Your task to perform on an android device: Open Maps and search for coffee Image 0: 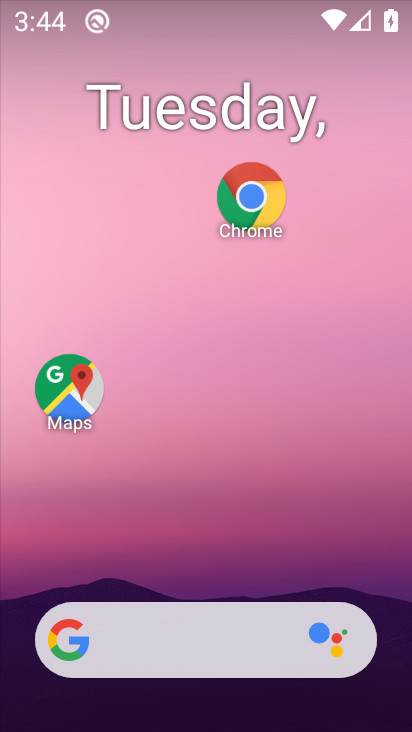
Step 0: click (64, 381)
Your task to perform on an android device: Open Maps and search for coffee Image 1: 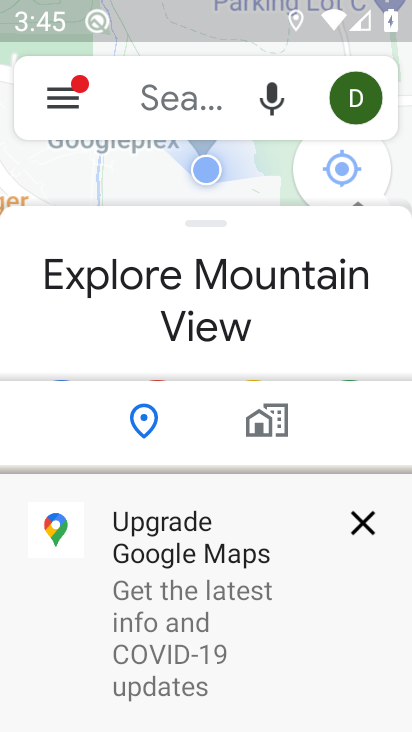
Step 1: click (363, 526)
Your task to perform on an android device: Open Maps and search for coffee Image 2: 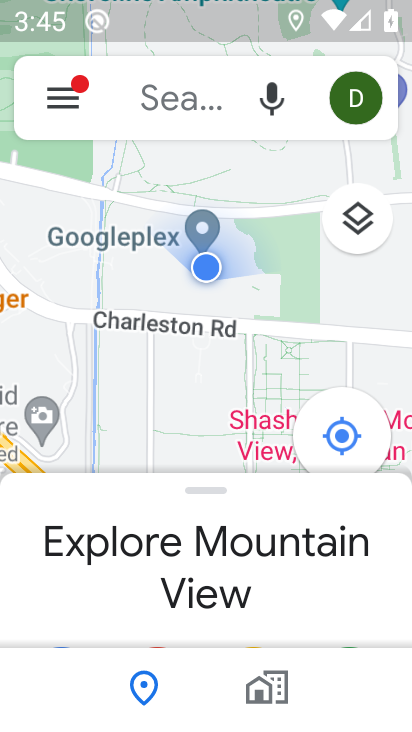
Step 2: click (180, 100)
Your task to perform on an android device: Open Maps and search for coffee Image 3: 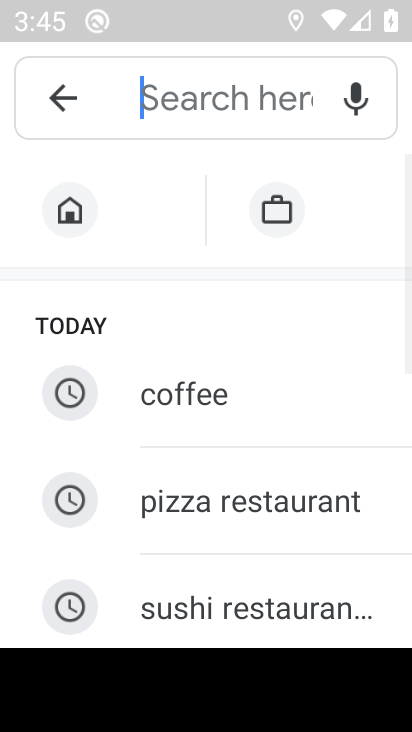
Step 3: click (202, 391)
Your task to perform on an android device: Open Maps and search for coffee Image 4: 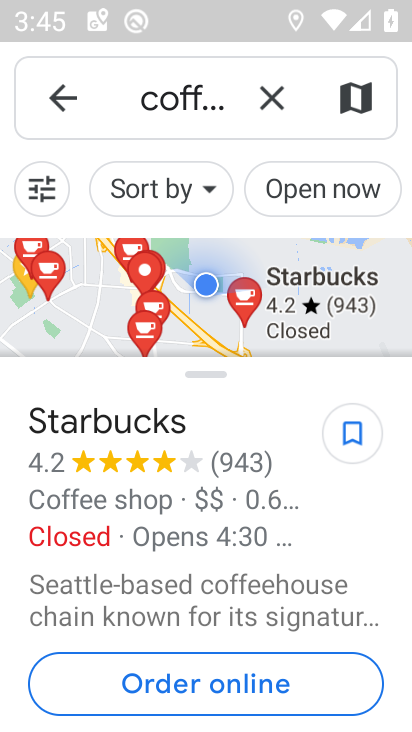
Step 4: task complete